Your task to perform on an android device: What is the speed of a cheetah? Image 0: 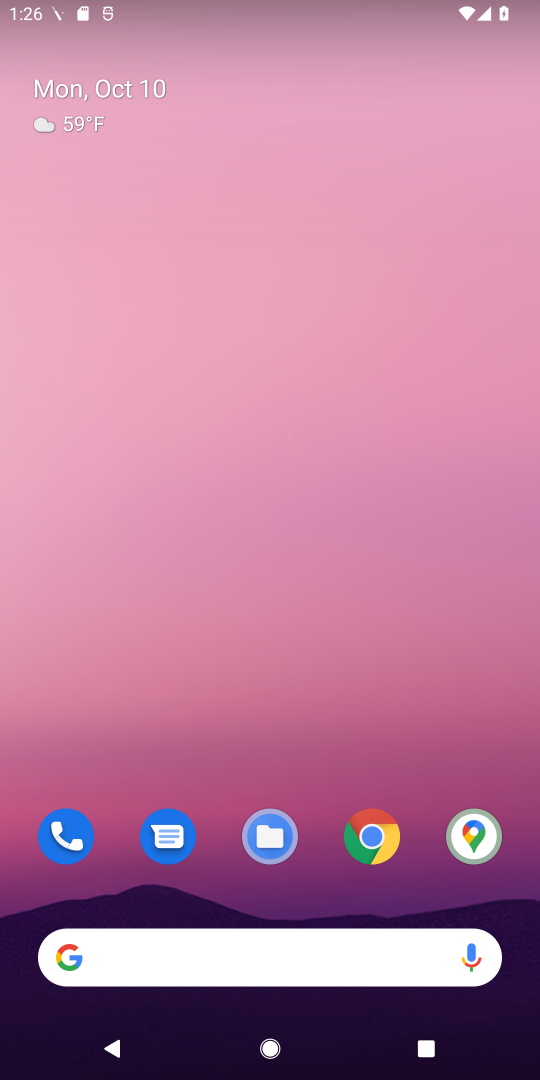
Step 0: click (381, 849)
Your task to perform on an android device: What is the speed of a cheetah? Image 1: 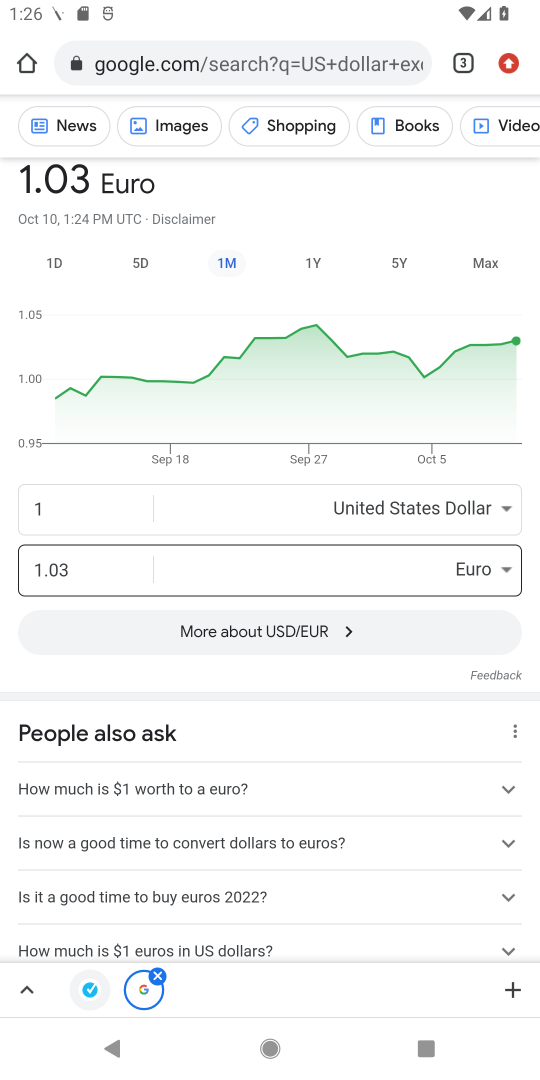
Step 1: click (208, 59)
Your task to perform on an android device: What is the speed of a cheetah? Image 2: 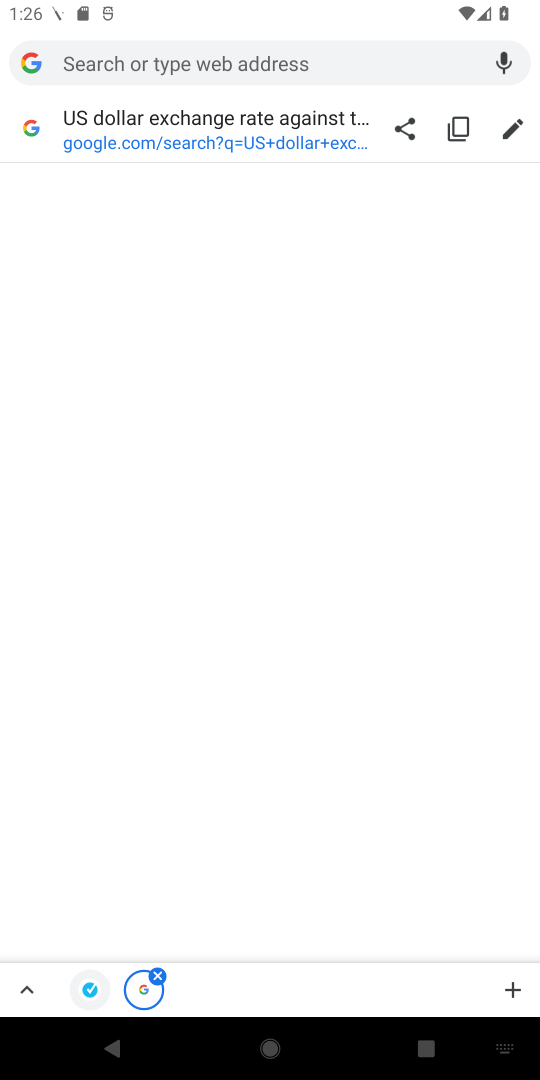
Step 2: type "speed of cheetah"
Your task to perform on an android device: What is the speed of a cheetah? Image 3: 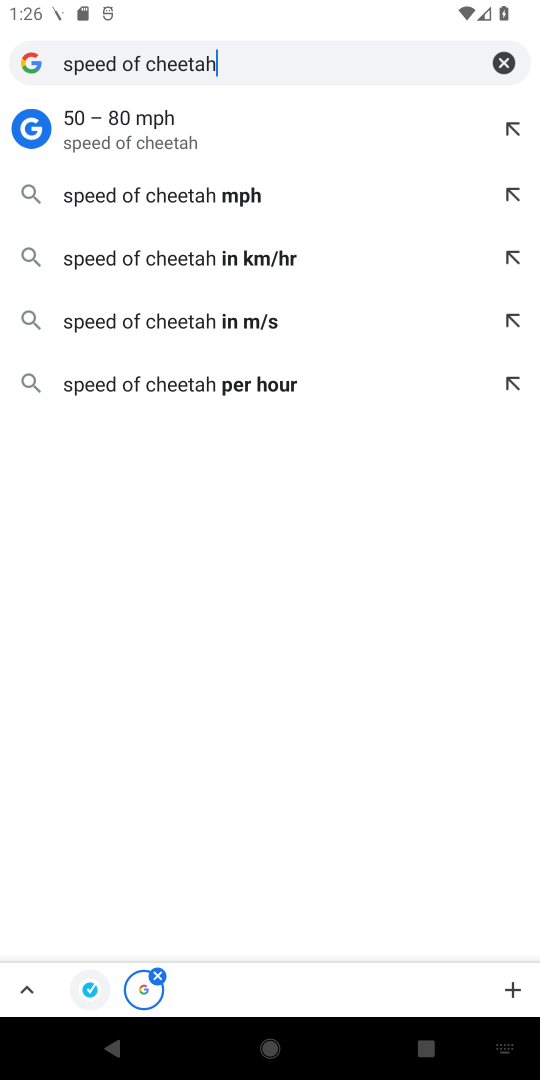
Step 3: click (193, 135)
Your task to perform on an android device: What is the speed of a cheetah? Image 4: 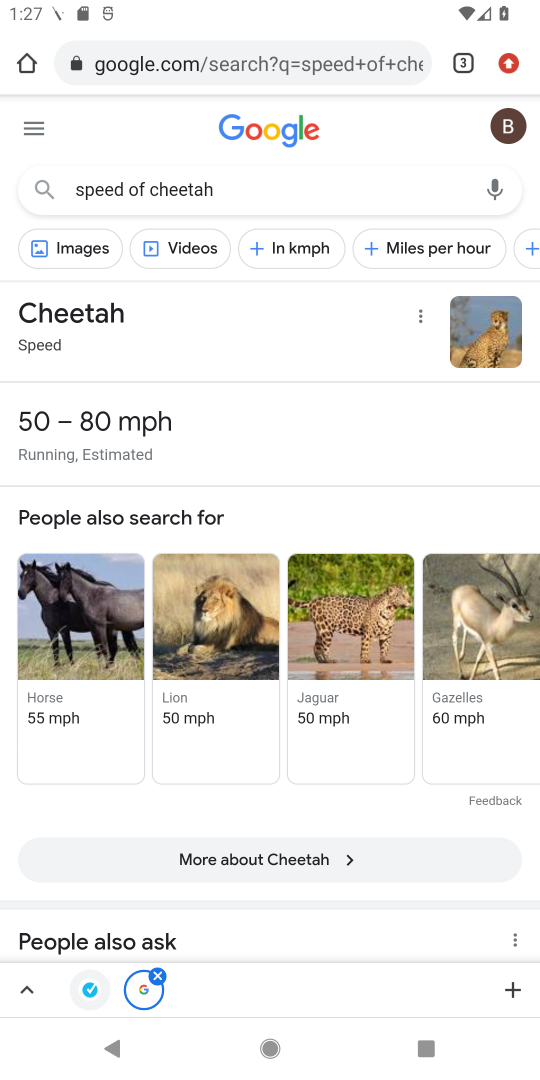
Step 4: task complete